Your task to perform on an android device: Go to Maps Image 0: 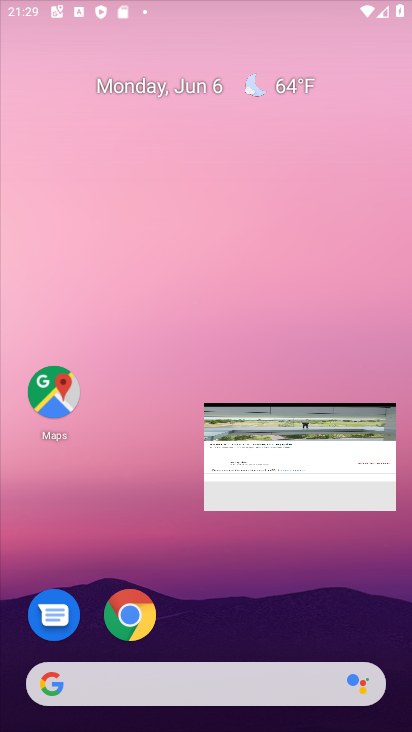
Step 0: click (348, 549)
Your task to perform on an android device: Go to Maps Image 1: 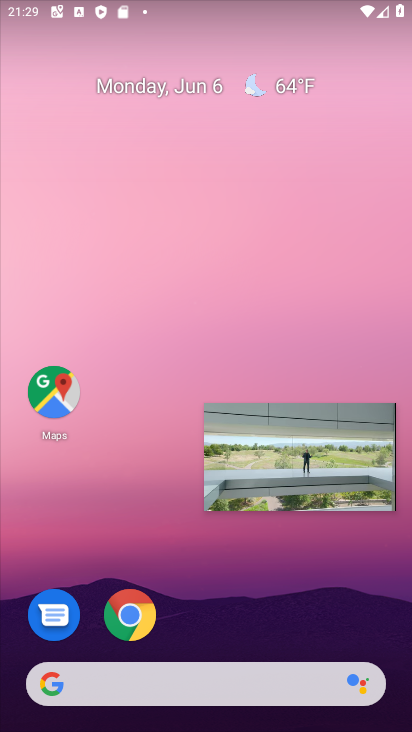
Step 1: click (373, 417)
Your task to perform on an android device: Go to Maps Image 2: 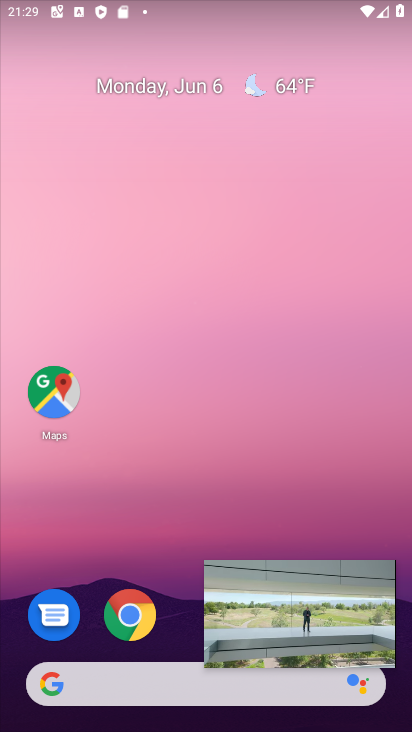
Step 2: click (349, 438)
Your task to perform on an android device: Go to Maps Image 3: 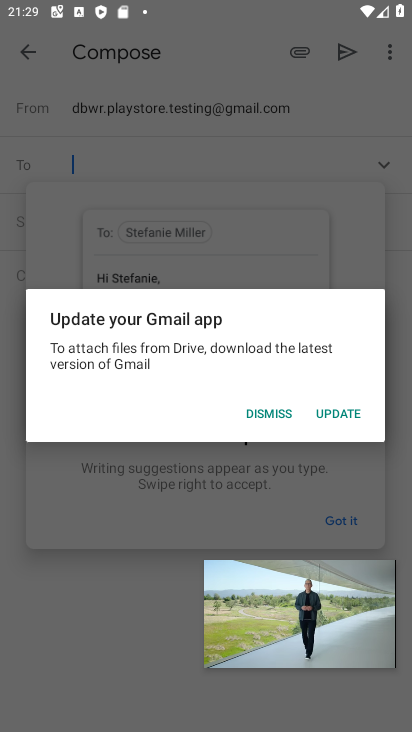
Step 3: click (347, 593)
Your task to perform on an android device: Go to Maps Image 4: 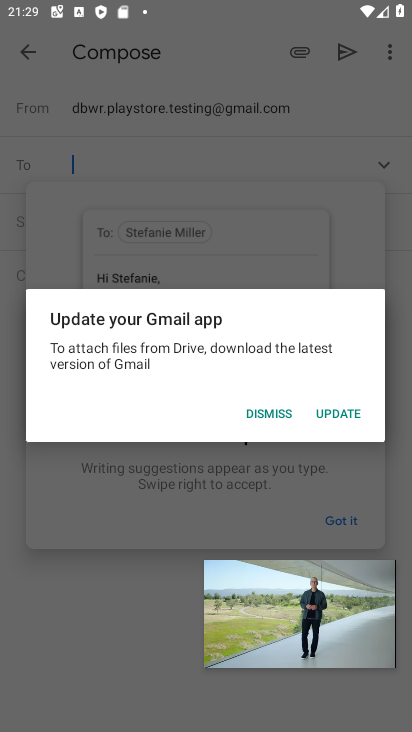
Step 4: click (347, 593)
Your task to perform on an android device: Go to Maps Image 5: 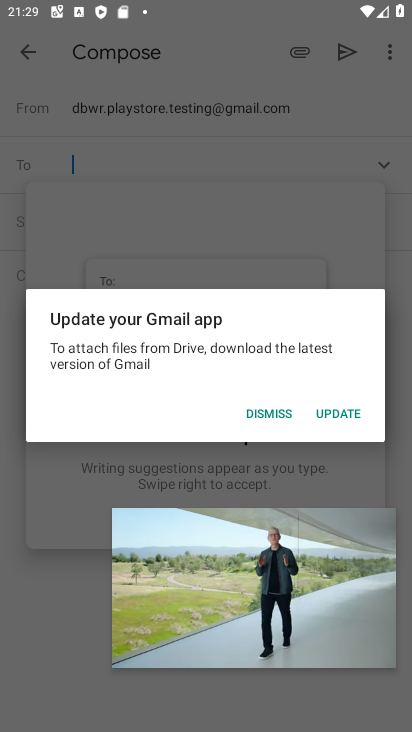
Step 5: click (351, 573)
Your task to perform on an android device: Go to Maps Image 6: 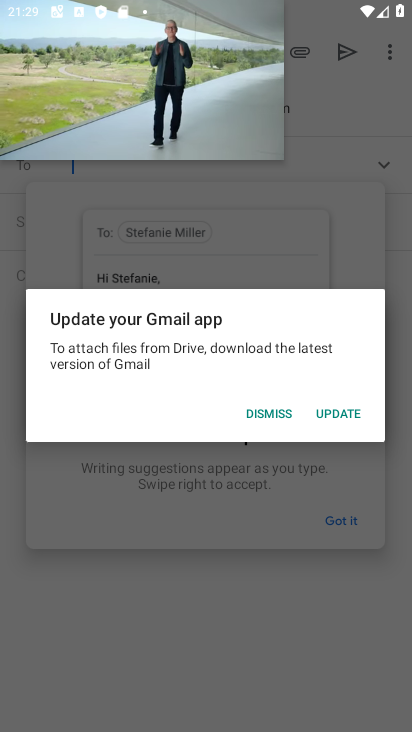
Step 6: click (336, 560)
Your task to perform on an android device: Go to Maps Image 7: 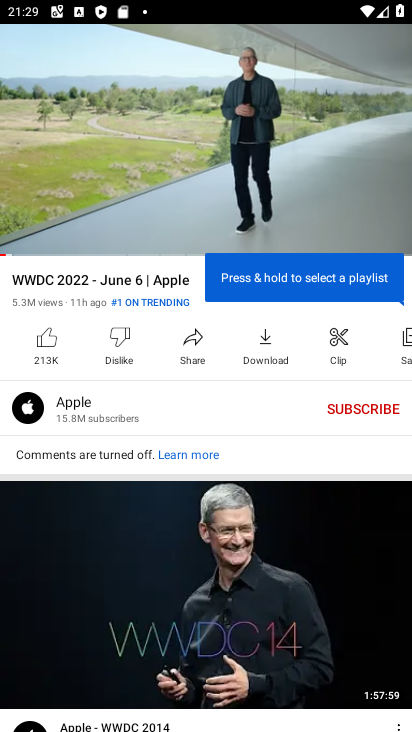
Step 7: press home button
Your task to perform on an android device: Go to Maps Image 8: 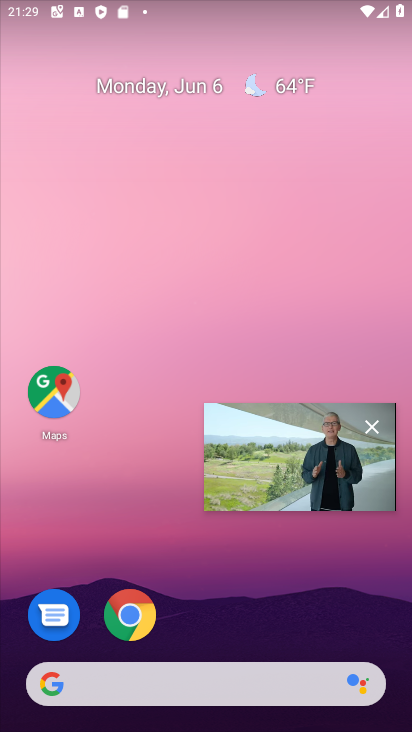
Step 8: click (365, 428)
Your task to perform on an android device: Go to Maps Image 9: 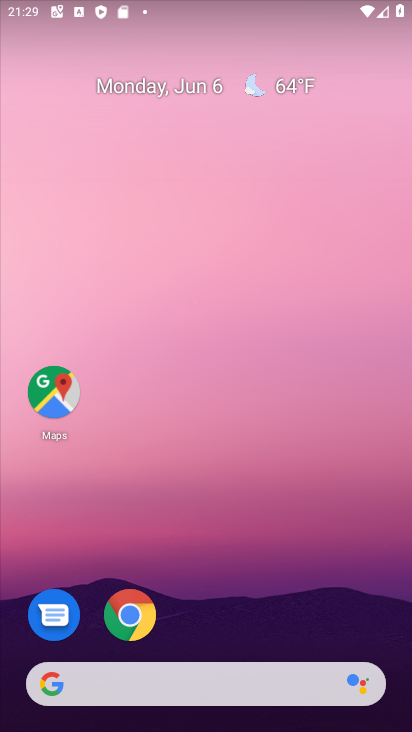
Step 9: click (50, 384)
Your task to perform on an android device: Go to Maps Image 10: 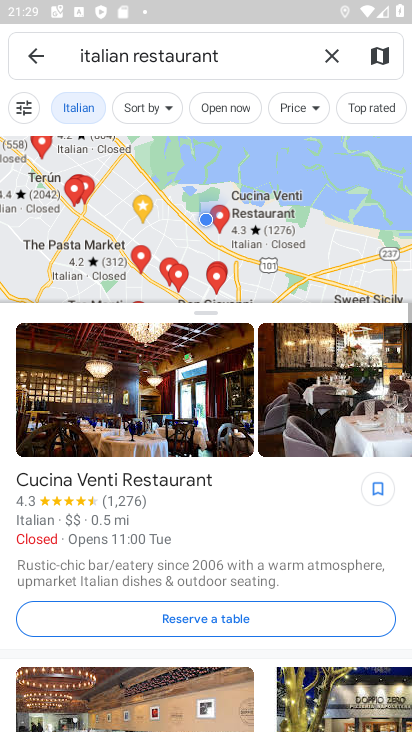
Step 10: click (27, 47)
Your task to perform on an android device: Go to Maps Image 11: 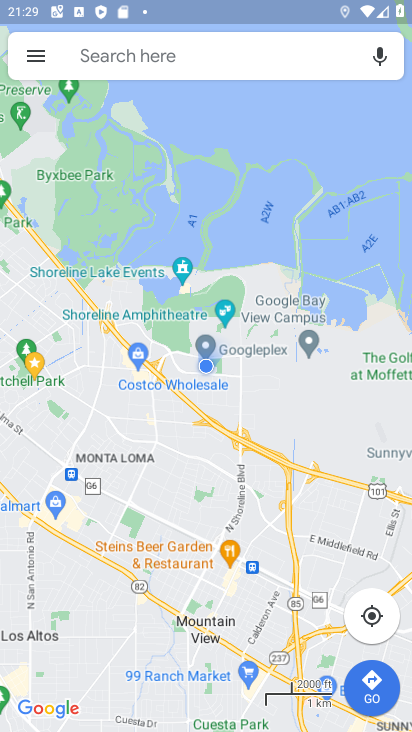
Step 11: task complete